Your task to perform on an android device: turn notification dots on Image 0: 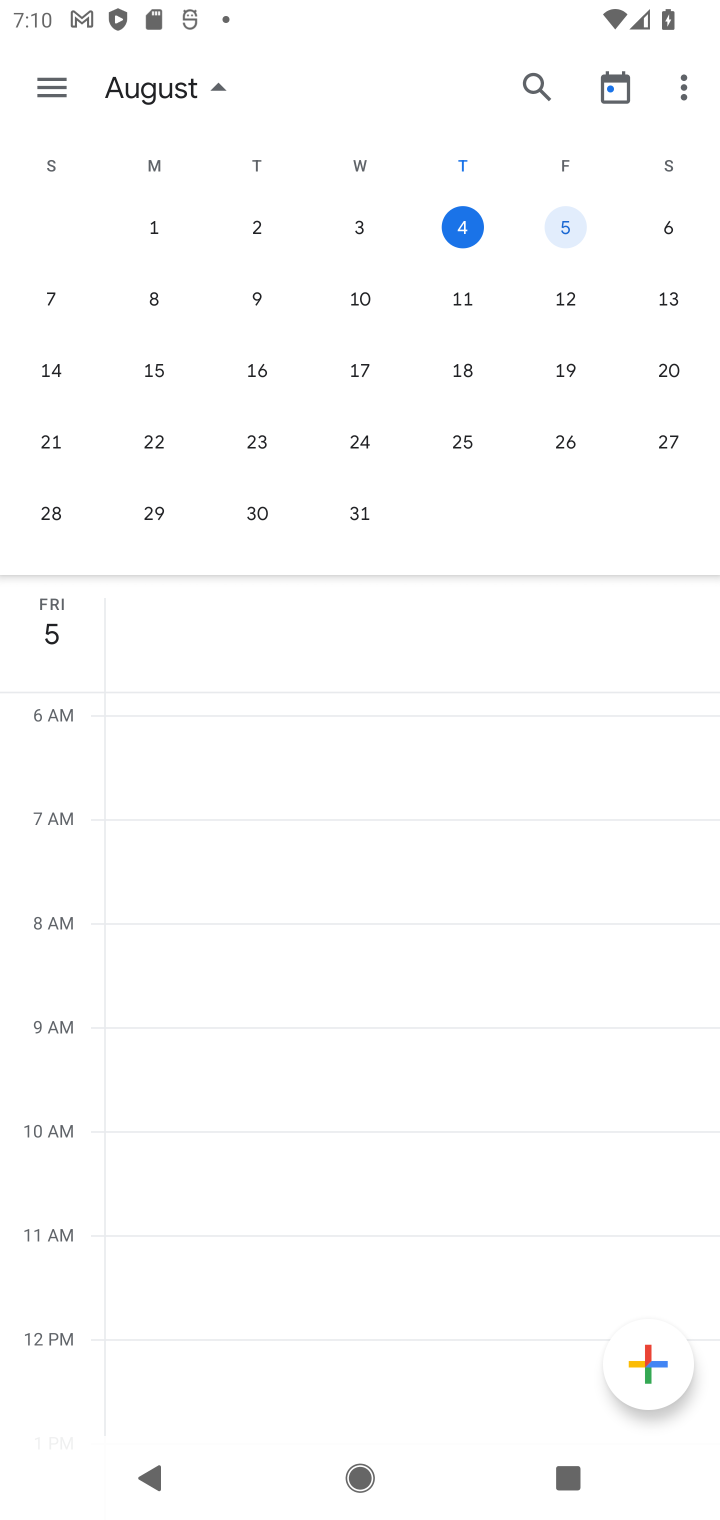
Step 0: press home button
Your task to perform on an android device: turn notification dots on Image 1: 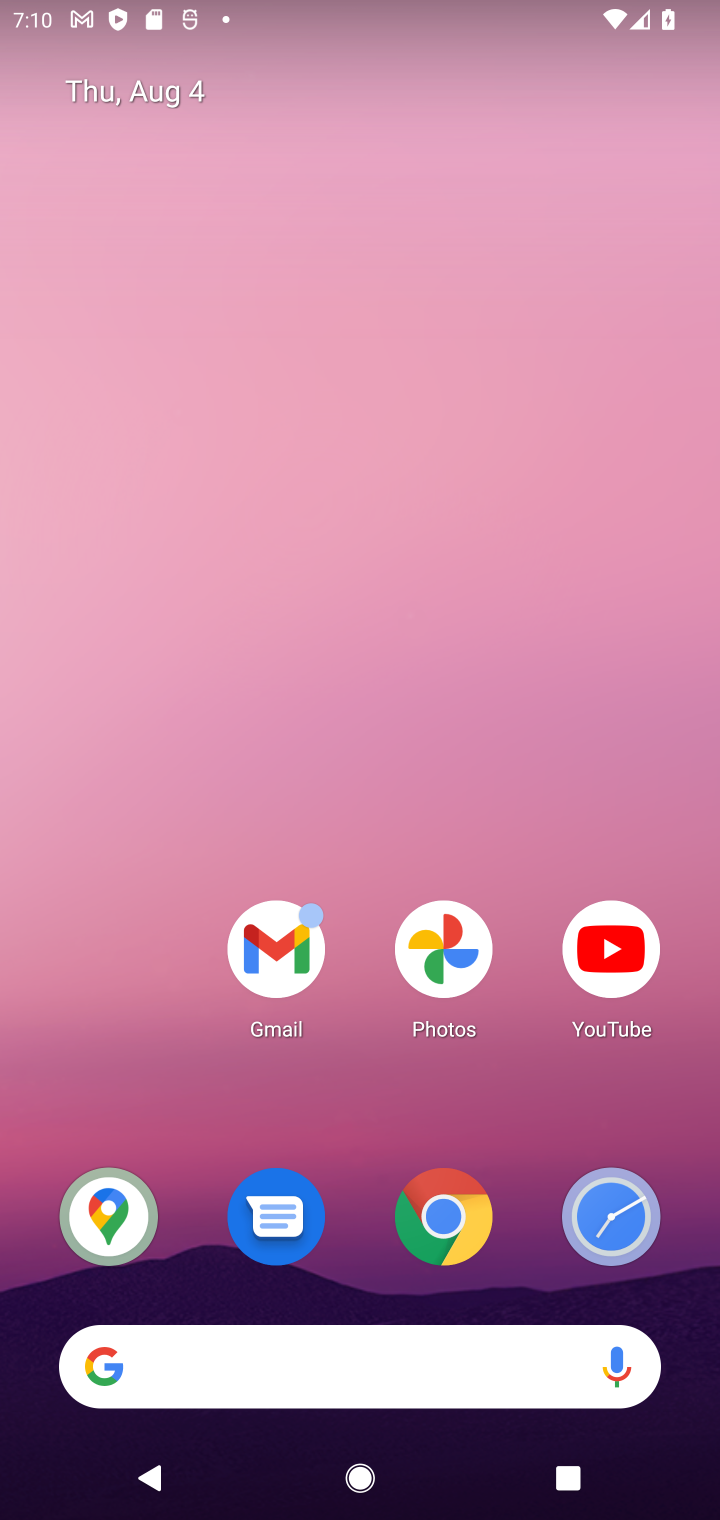
Step 1: drag from (371, 1048) to (426, 55)
Your task to perform on an android device: turn notification dots on Image 2: 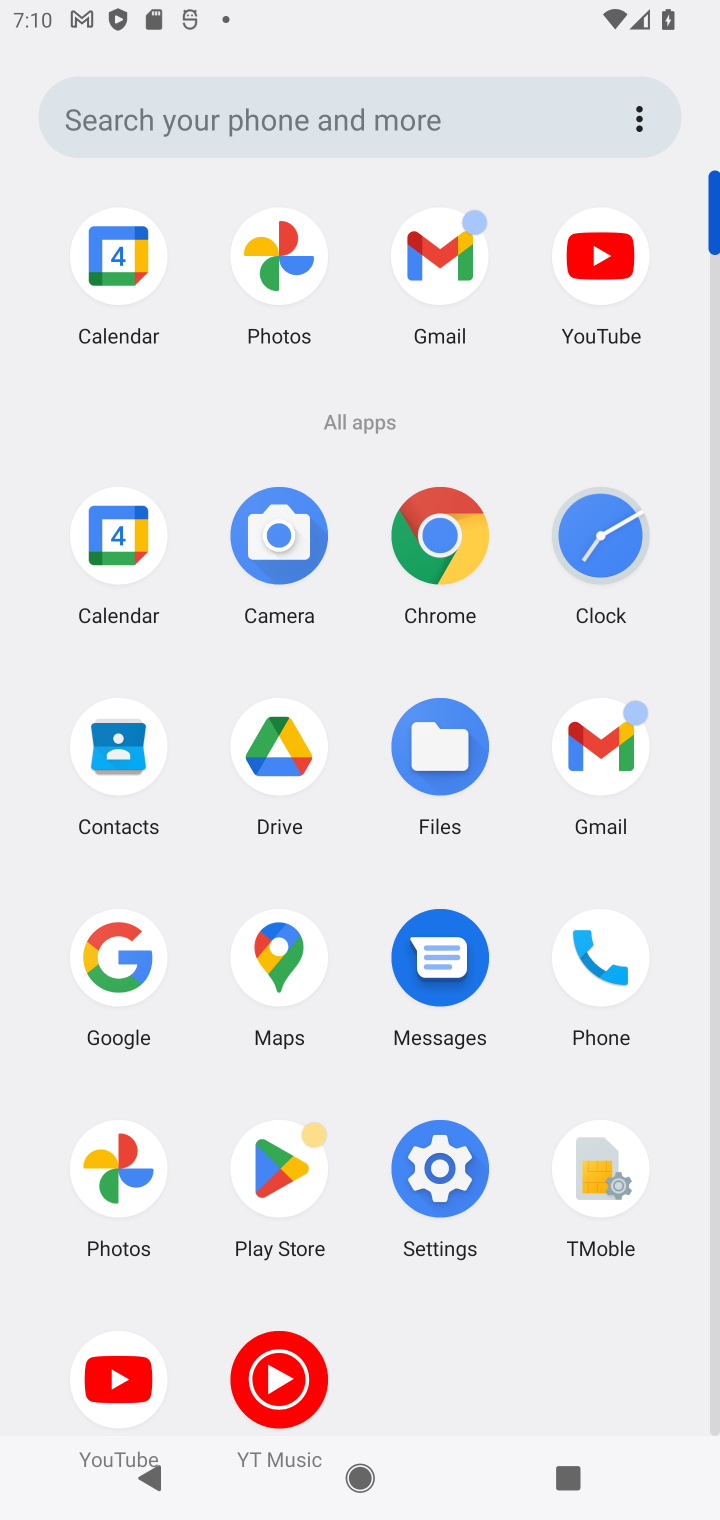
Step 2: click (427, 1175)
Your task to perform on an android device: turn notification dots on Image 3: 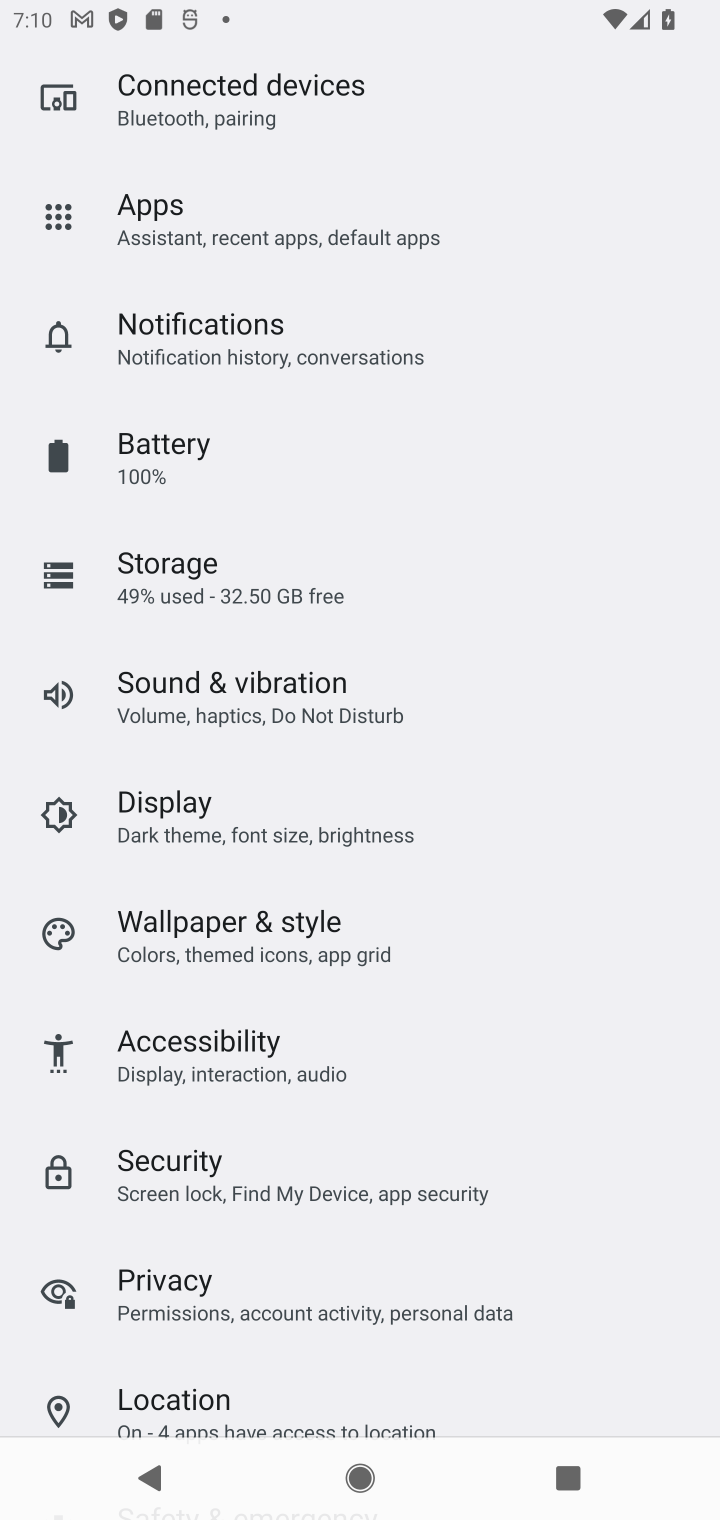
Step 3: click (229, 345)
Your task to perform on an android device: turn notification dots on Image 4: 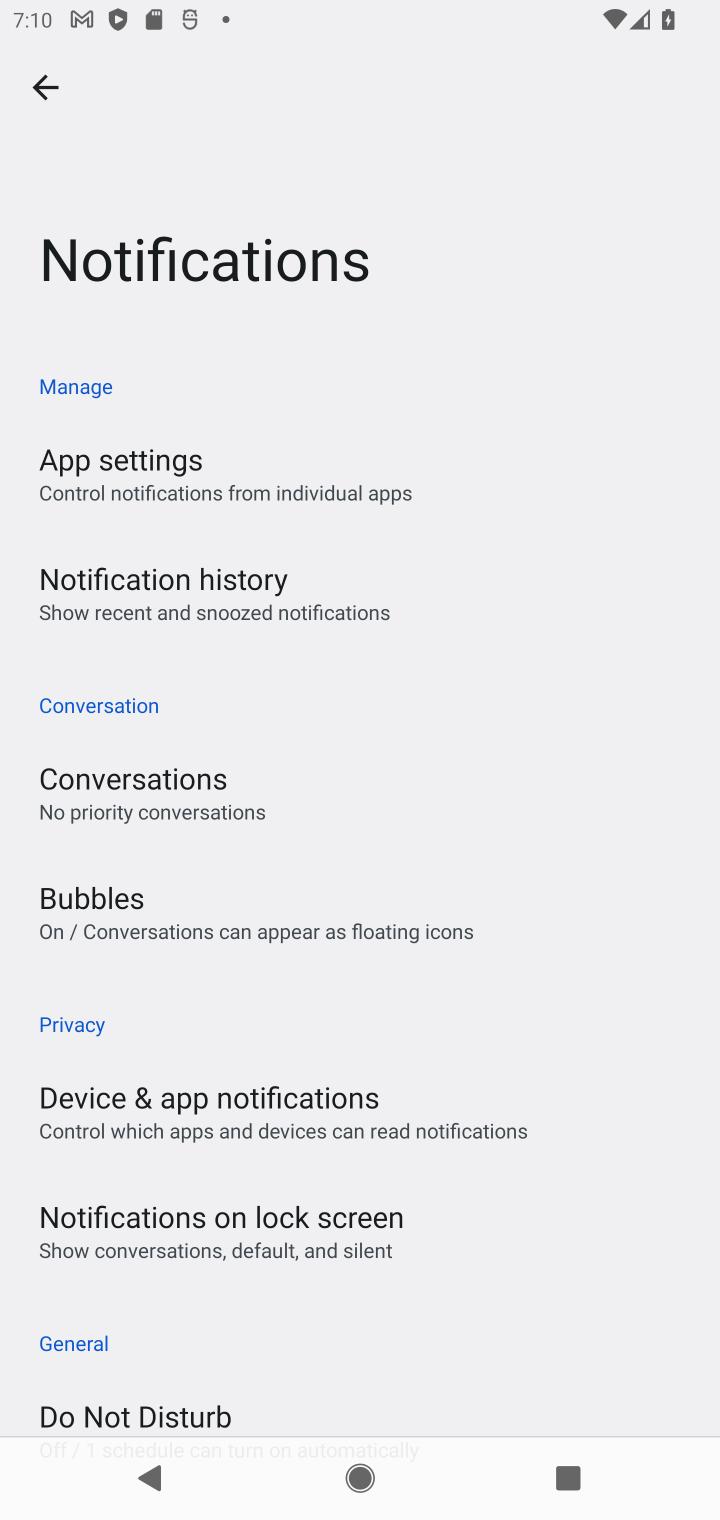
Step 4: task complete